Your task to perform on an android device: Go to internet settings Image 0: 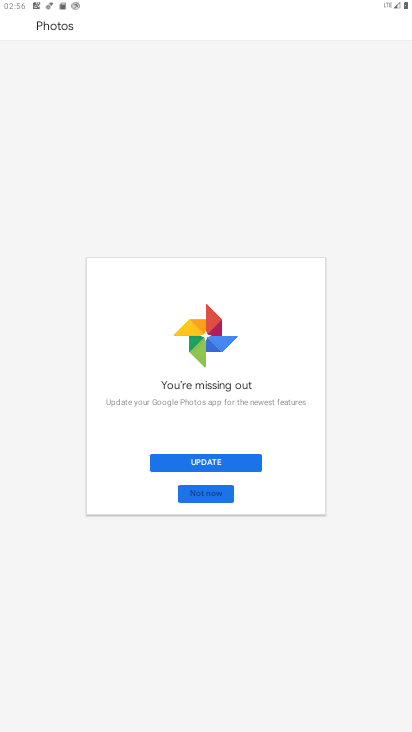
Step 0: press home button
Your task to perform on an android device: Go to internet settings Image 1: 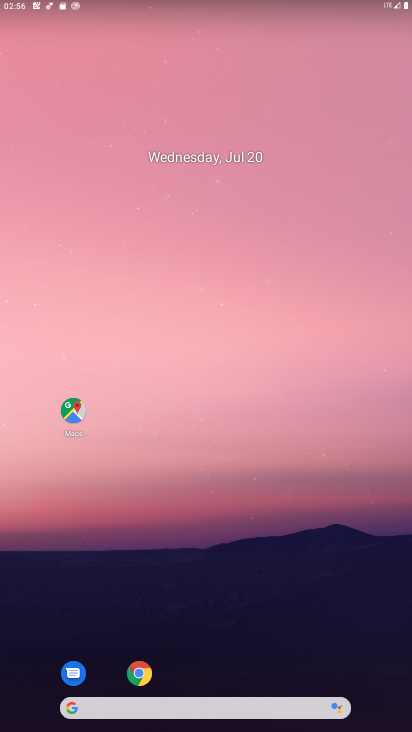
Step 1: drag from (251, 631) to (247, 10)
Your task to perform on an android device: Go to internet settings Image 2: 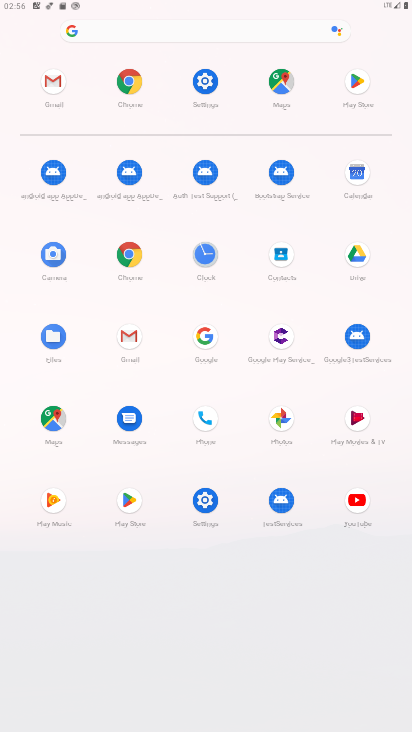
Step 2: click (199, 509)
Your task to perform on an android device: Go to internet settings Image 3: 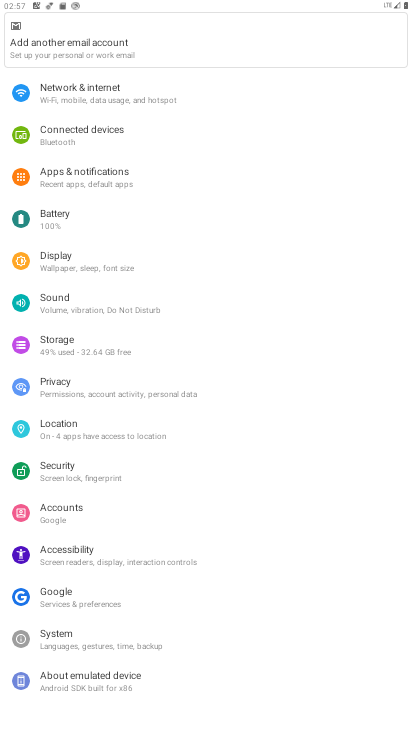
Step 3: click (90, 83)
Your task to perform on an android device: Go to internet settings Image 4: 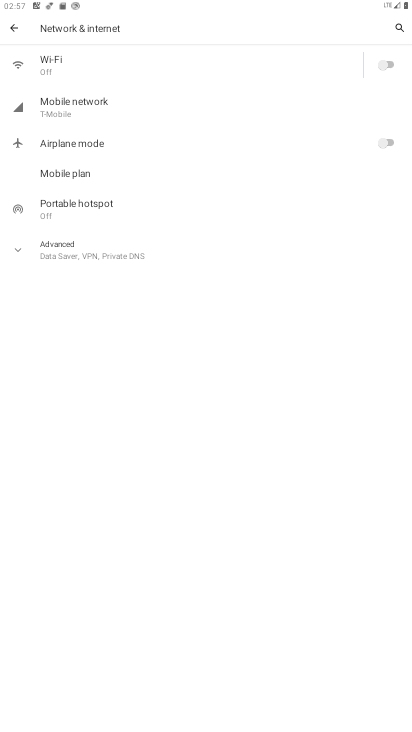
Step 4: task complete